Your task to perform on an android device: What's the weather? Image 0: 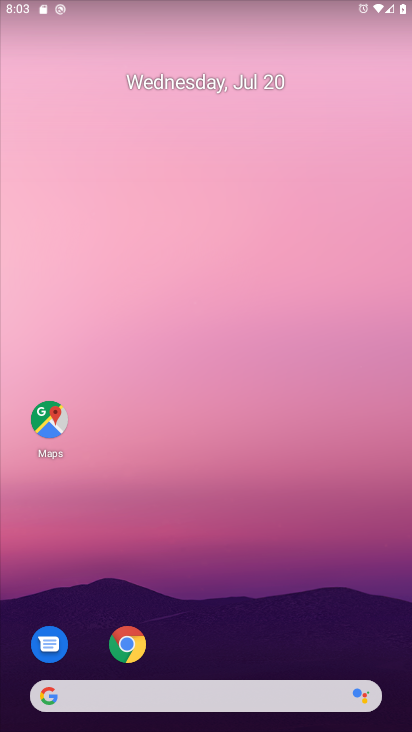
Step 0: drag from (155, 686) to (202, 312)
Your task to perform on an android device: What's the weather? Image 1: 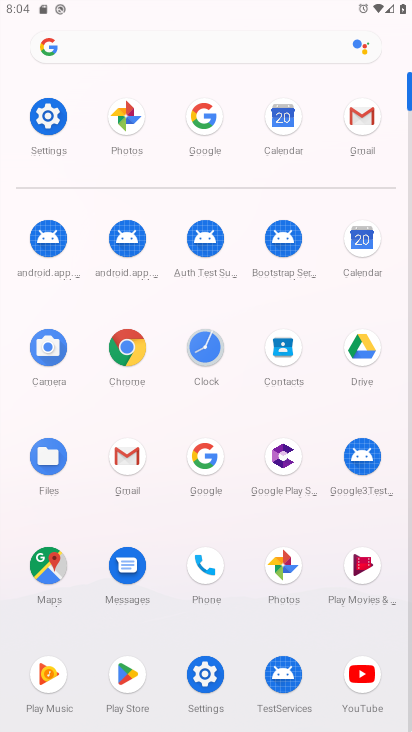
Step 1: click (194, 461)
Your task to perform on an android device: What's the weather? Image 2: 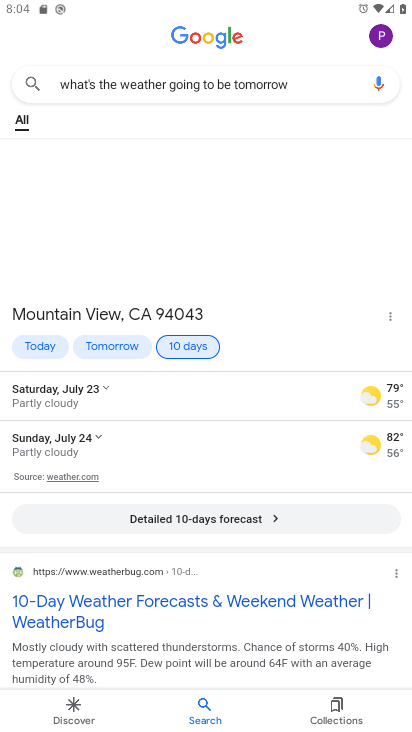
Step 2: click (222, 86)
Your task to perform on an android device: What's the weather? Image 3: 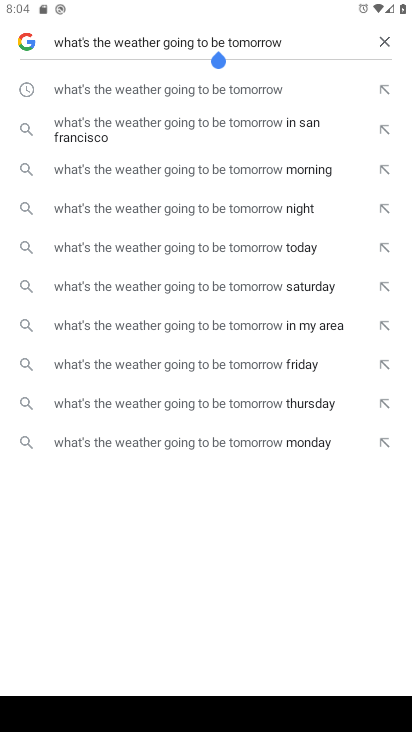
Step 3: click (379, 43)
Your task to perform on an android device: What's the weather? Image 4: 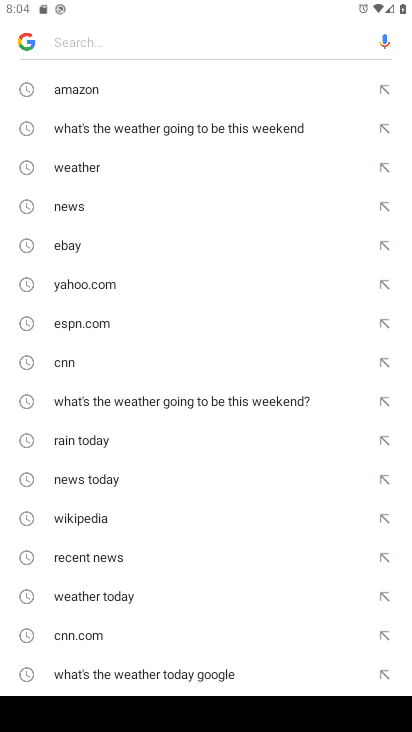
Step 4: click (86, 169)
Your task to perform on an android device: What's the weather? Image 5: 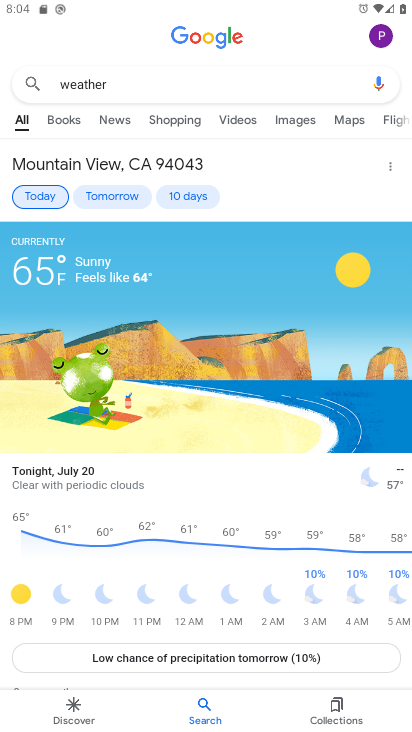
Step 5: task complete